Your task to perform on an android device: Search for the best 4k TVs Image 0: 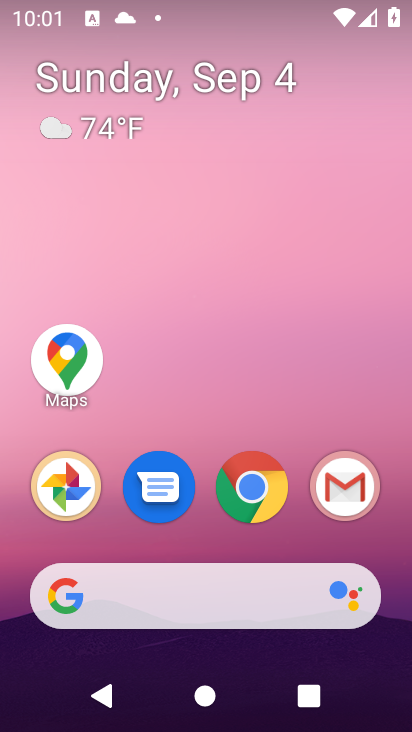
Step 0: click (226, 588)
Your task to perform on an android device: Search for the best 4k TVs Image 1: 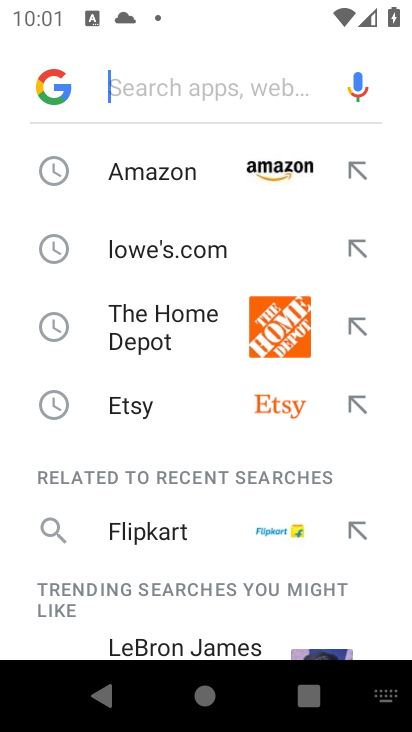
Step 1: type "4k TVs"
Your task to perform on an android device: Search for the best 4k TVs Image 2: 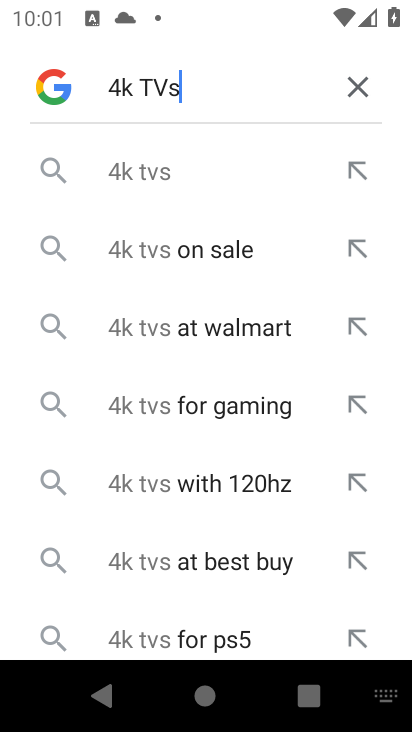
Step 2: click (248, 157)
Your task to perform on an android device: Search for the best 4k TVs Image 3: 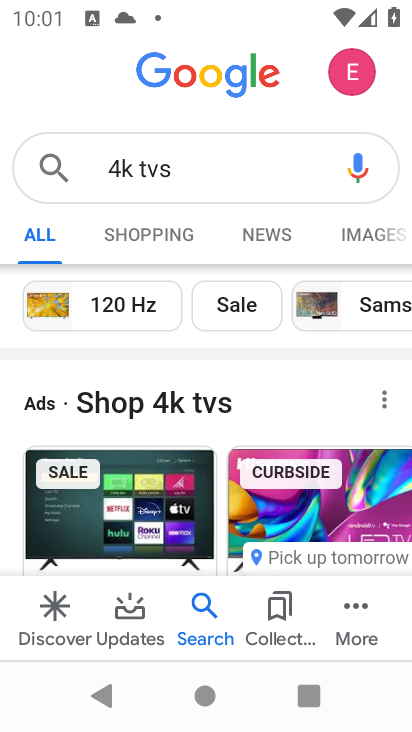
Step 3: task complete